Your task to perform on an android device: Open sound settings Image 0: 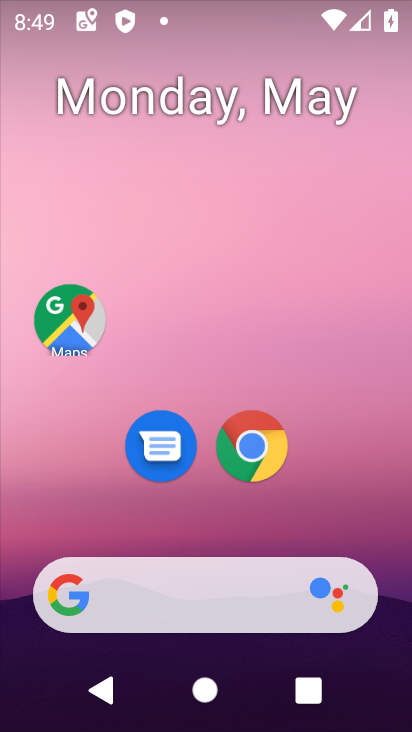
Step 0: drag from (200, 518) to (279, 25)
Your task to perform on an android device: Open sound settings Image 1: 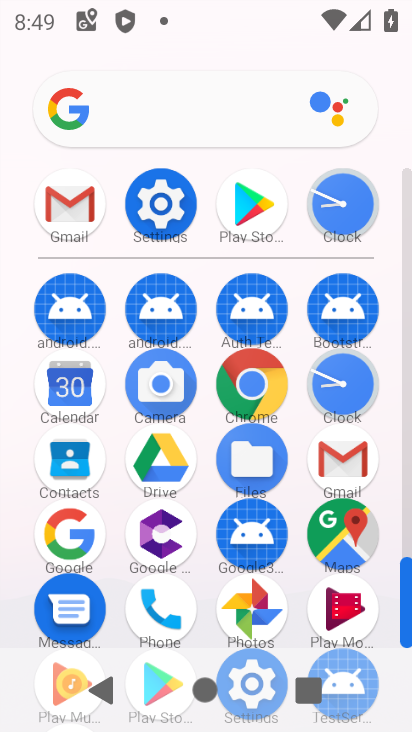
Step 1: click (152, 189)
Your task to perform on an android device: Open sound settings Image 2: 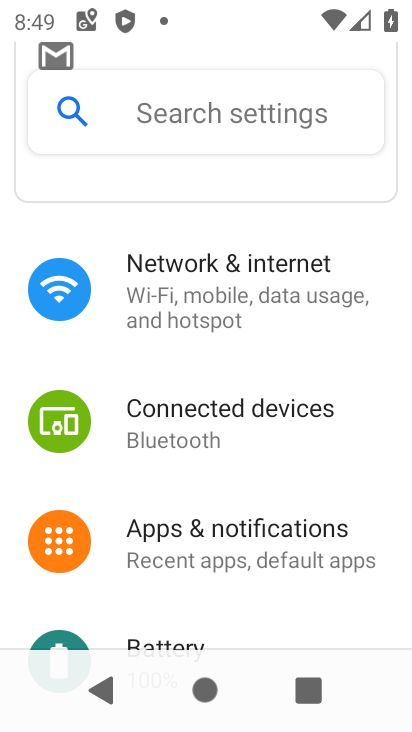
Step 2: drag from (239, 591) to (250, 130)
Your task to perform on an android device: Open sound settings Image 3: 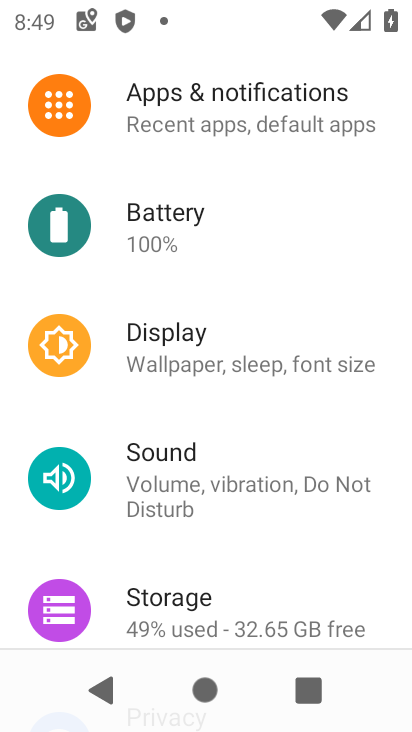
Step 3: click (206, 468)
Your task to perform on an android device: Open sound settings Image 4: 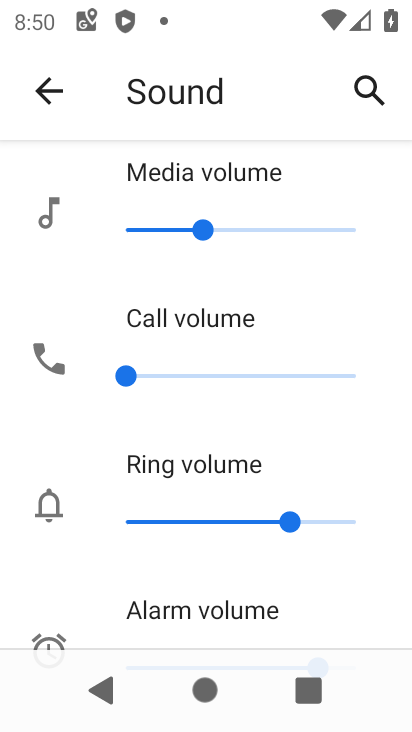
Step 4: drag from (292, 589) to (350, 222)
Your task to perform on an android device: Open sound settings Image 5: 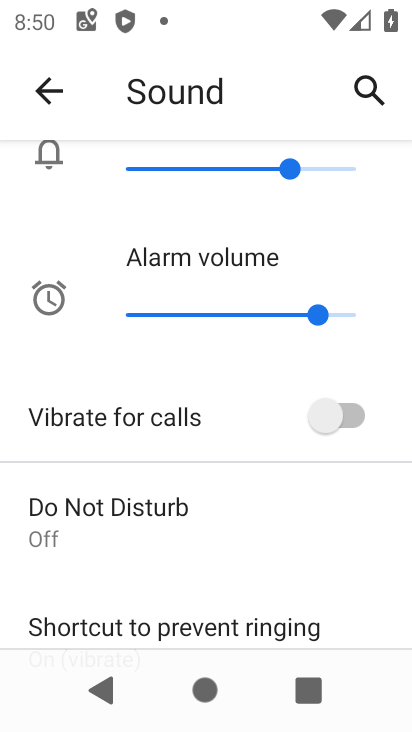
Step 5: drag from (211, 572) to (231, 143)
Your task to perform on an android device: Open sound settings Image 6: 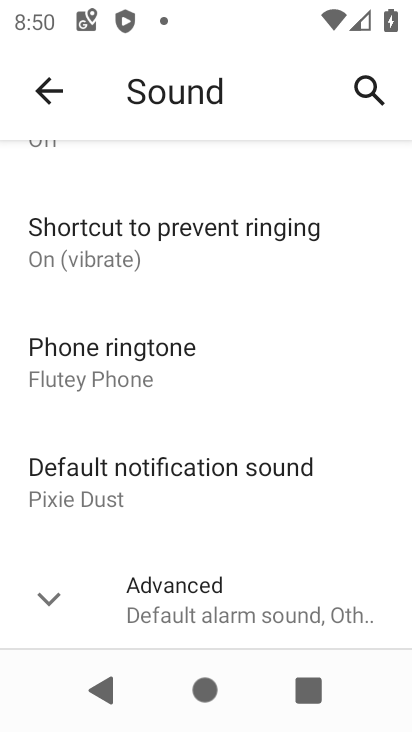
Step 6: click (51, 590)
Your task to perform on an android device: Open sound settings Image 7: 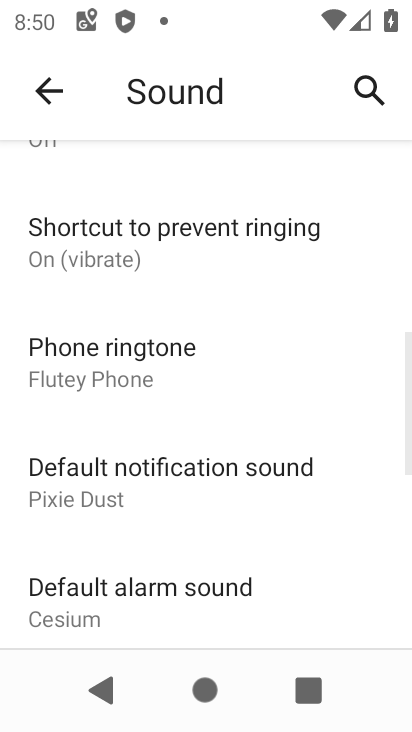
Step 7: task complete